Your task to perform on an android device: Open CNN.com Image 0: 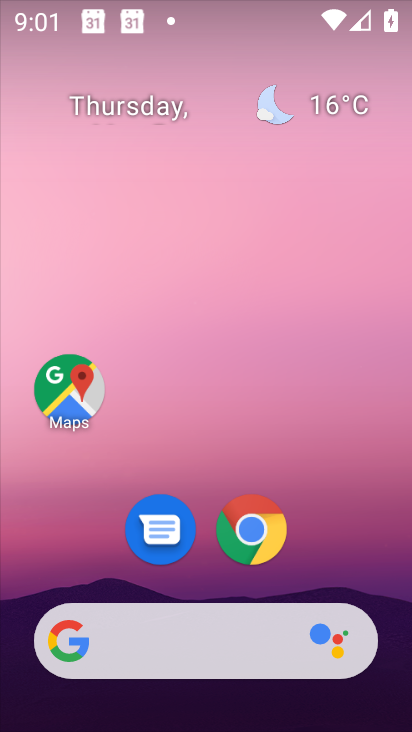
Step 0: click (259, 535)
Your task to perform on an android device: Open CNN.com Image 1: 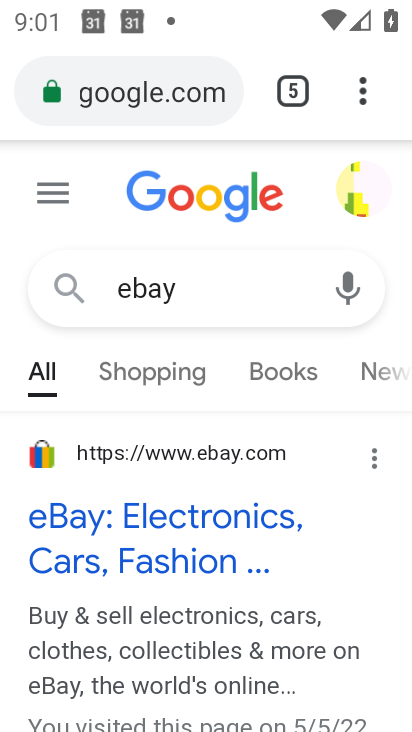
Step 1: click (360, 80)
Your task to perform on an android device: Open CNN.com Image 2: 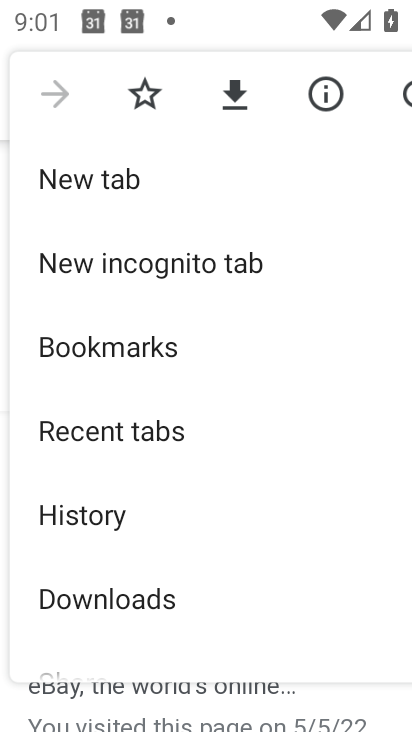
Step 2: click (123, 175)
Your task to perform on an android device: Open CNN.com Image 3: 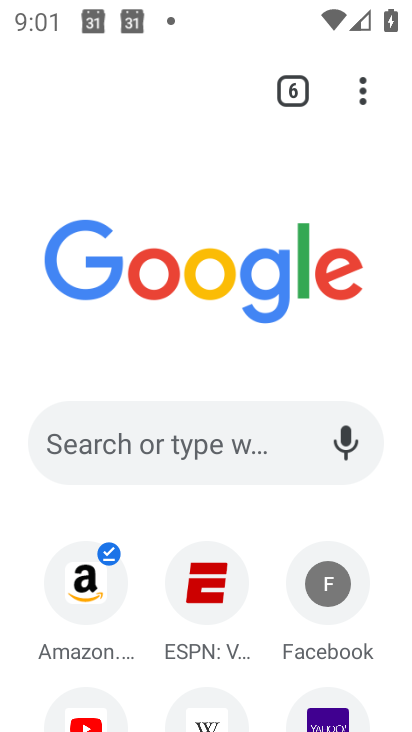
Step 3: click (167, 441)
Your task to perform on an android device: Open CNN.com Image 4: 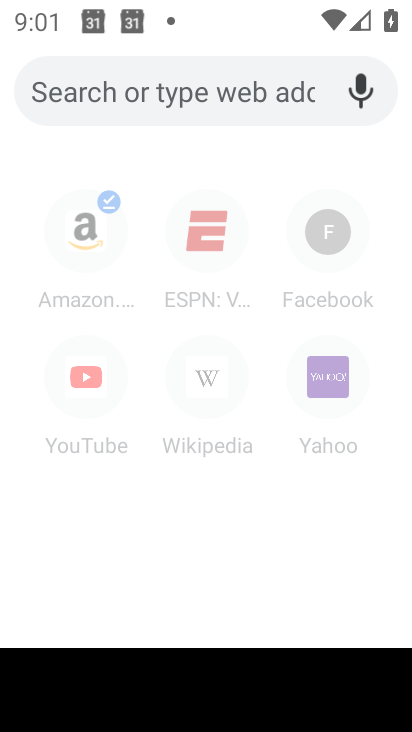
Step 4: type "cnn.com"
Your task to perform on an android device: Open CNN.com Image 5: 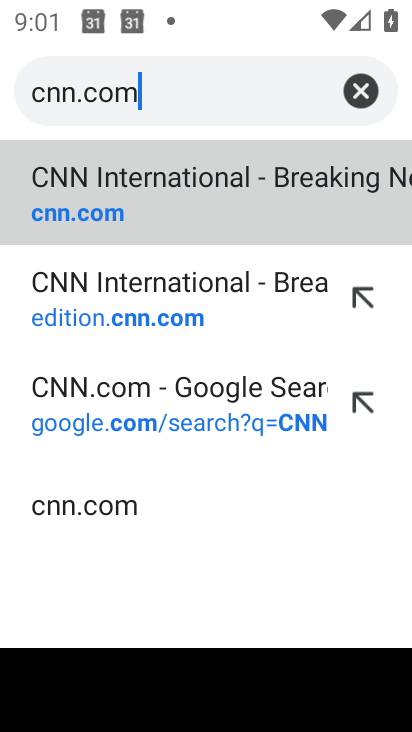
Step 5: click (153, 193)
Your task to perform on an android device: Open CNN.com Image 6: 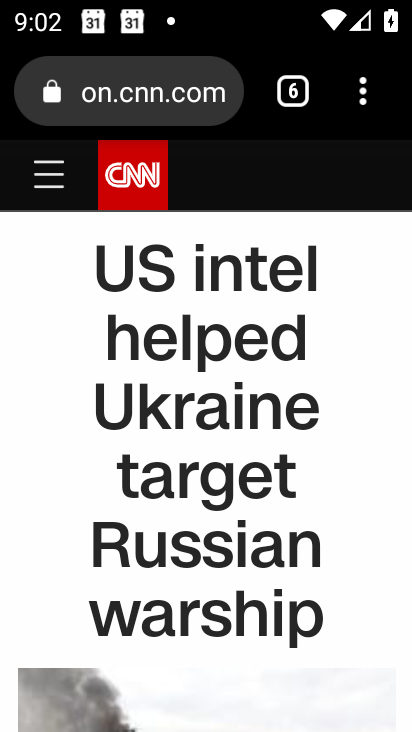
Step 6: task complete